Your task to perform on an android device: find photos in the google photos app Image 0: 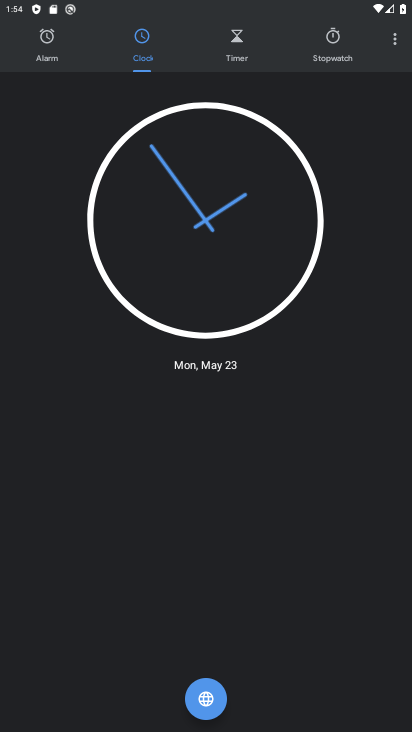
Step 0: press home button
Your task to perform on an android device: find photos in the google photos app Image 1: 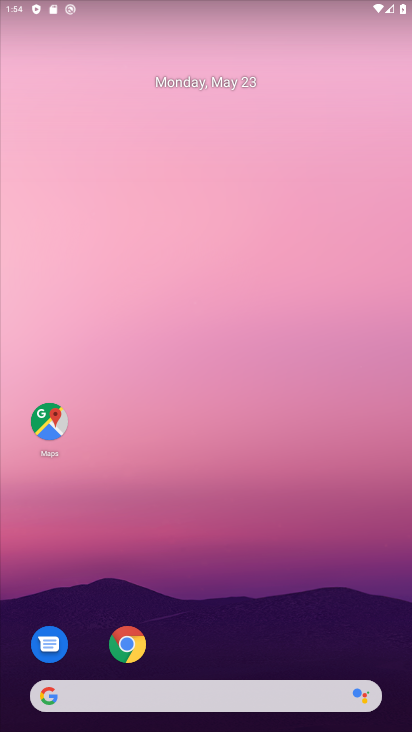
Step 1: drag from (319, 475) to (304, 57)
Your task to perform on an android device: find photos in the google photos app Image 2: 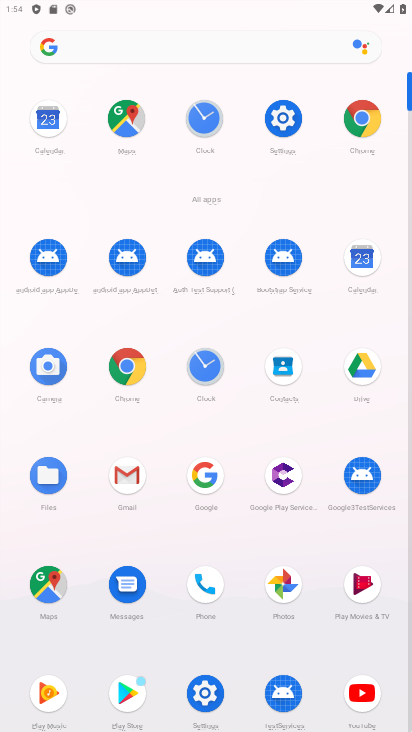
Step 2: click (278, 580)
Your task to perform on an android device: find photos in the google photos app Image 3: 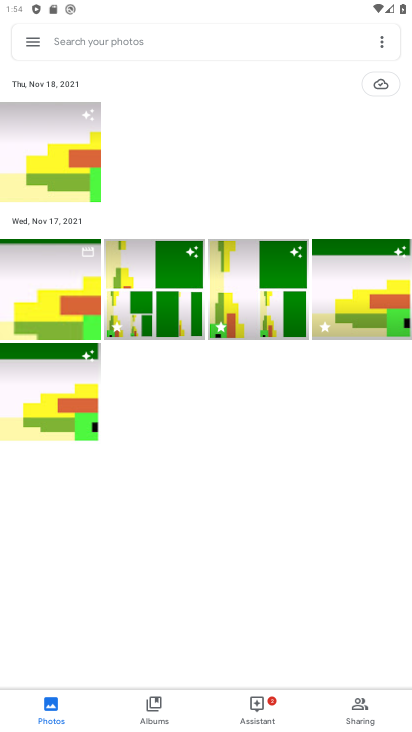
Step 3: click (59, 184)
Your task to perform on an android device: find photos in the google photos app Image 4: 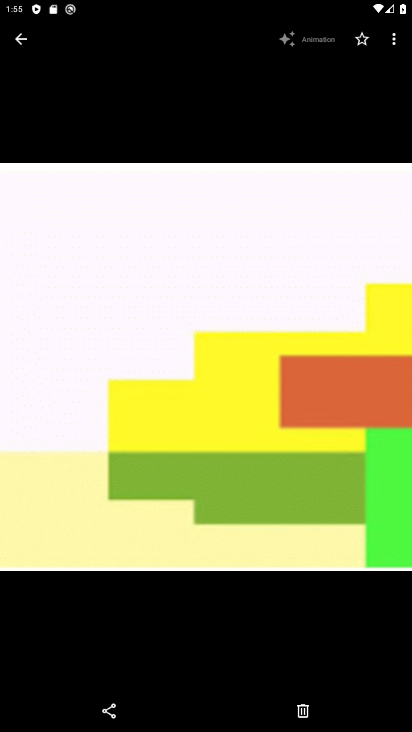
Step 4: task complete